Your task to perform on an android device: move a message to another label in the gmail app Image 0: 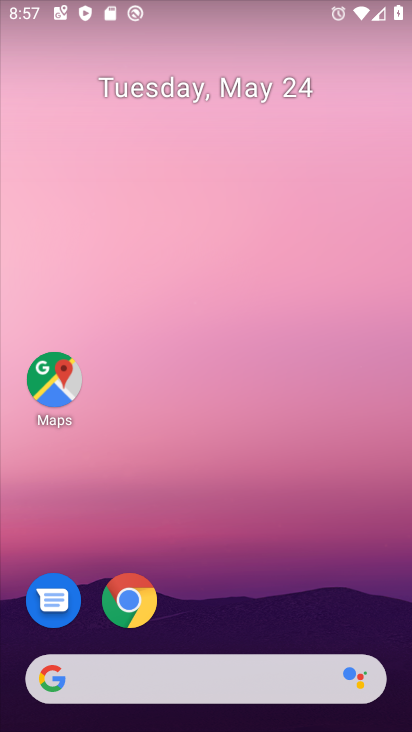
Step 0: drag from (247, 716) to (239, 71)
Your task to perform on an android device: move a message to another label in the gmail app Image 1: 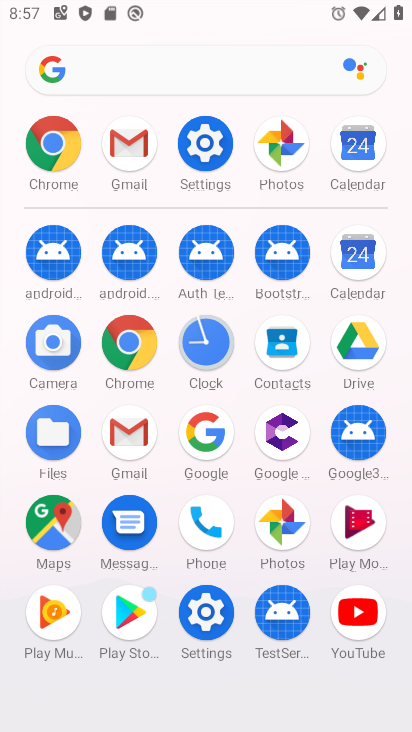
Step 1: click (129, 441)
Your task to perform on an android device: move a message to another label in the gmail app Image 2: 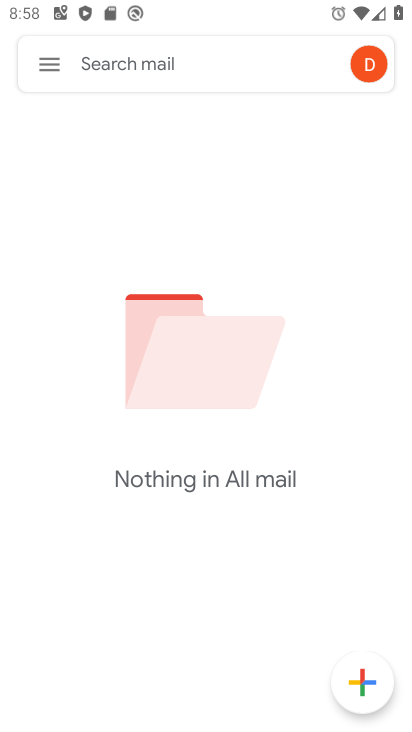
Step 2: click (50, 70)
Your task to perform on an android device: move a message to another label in the gmail app Image 3: 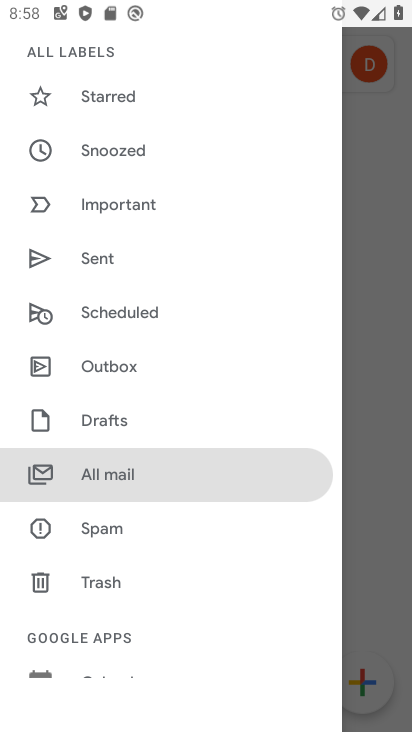
Step 3: drag from (132, 100) to (124, 455)
Your task to perform on an android device: move a message to another label in the gmail app Image 4: 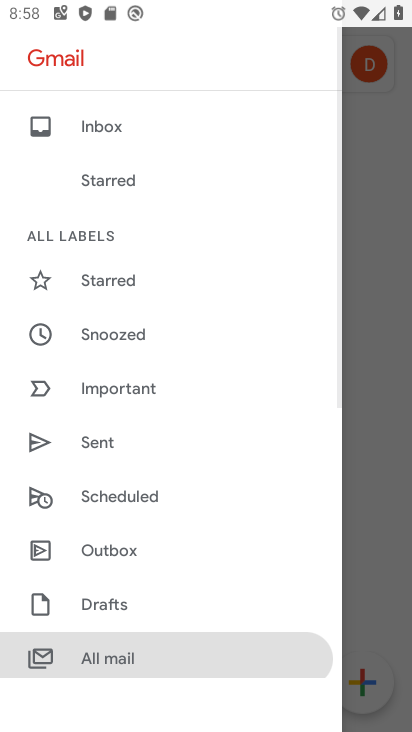
Step 4: click (115, 129)
Your task to perform on an android device: move a message to another label in the gmail app Image 5: 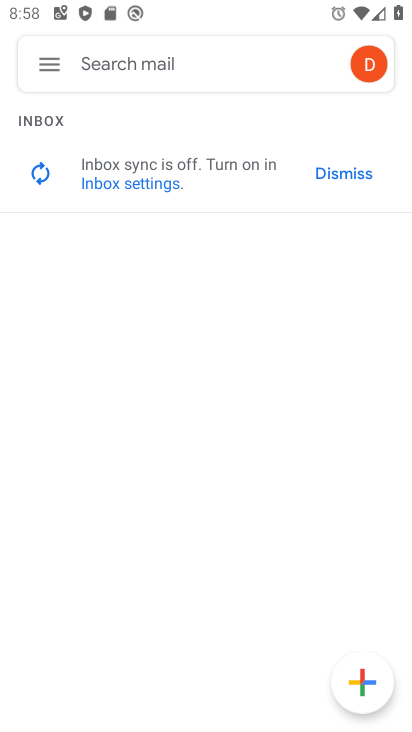
Step 5: task complete